Your task to perform on an android device: turn on the 12-hour format for clock Image 0: 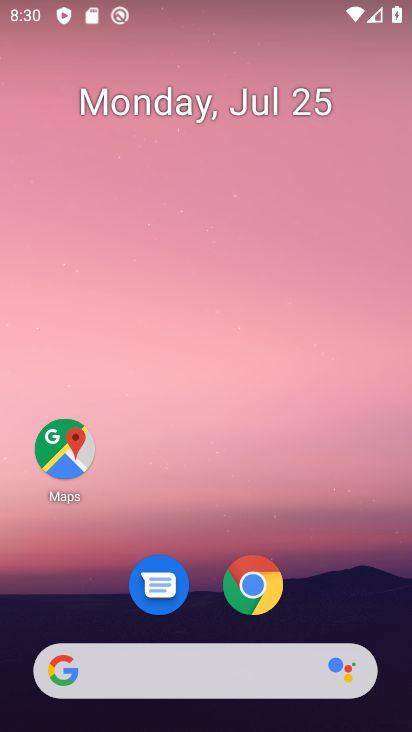
Step 0: press home button
Your task to perform on an android device: turn on the 12-hour format for clock Image 1: 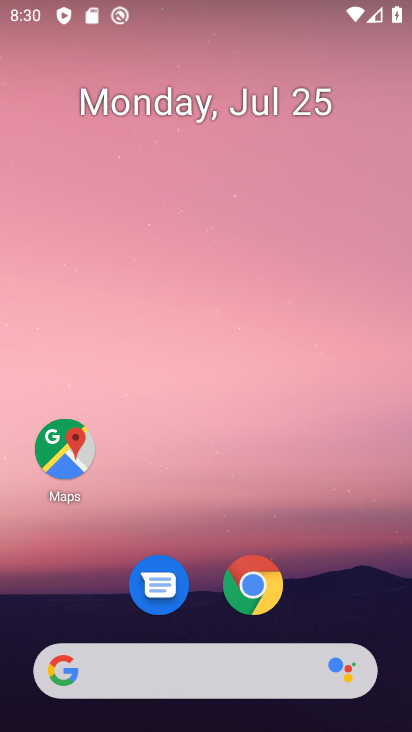
Step 1: drag from (211, 666) to (367, 114)
Your task to perform on an android device: turn on the 12-hour format for clock Image 2: 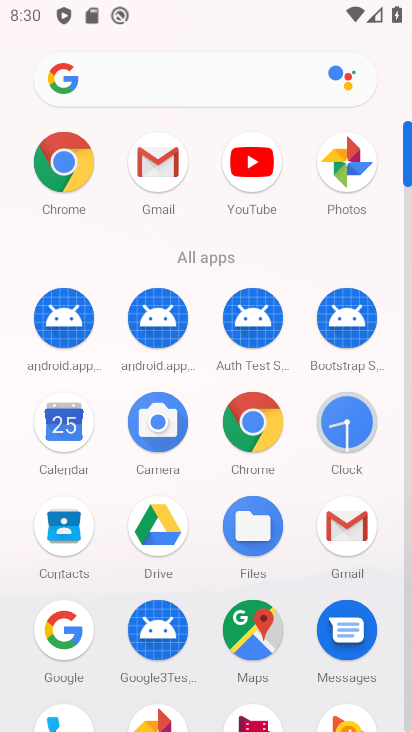
Step 2: click (347, 421)
Your task to perform on an android device: turn on the 12-hour format for clock Image 3: 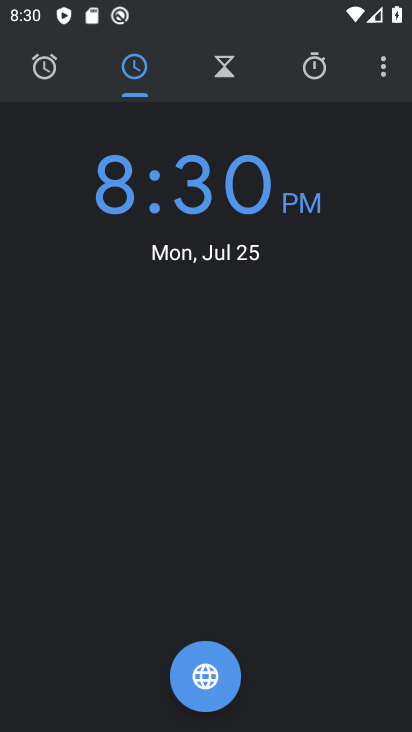
Step 3: click (380, 69)
Your task to perform on an android device: turn on the 12-hour format for clock Image 4: 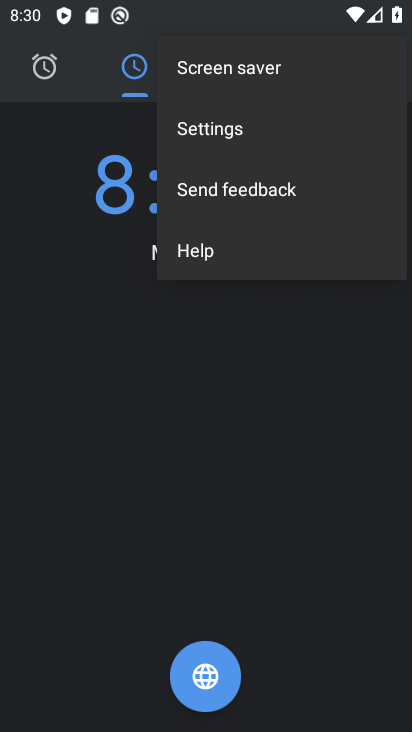
Step 4: click (215, 135)
Your task to perform on an android device: turn on the 12-hour format for clock Image 5: 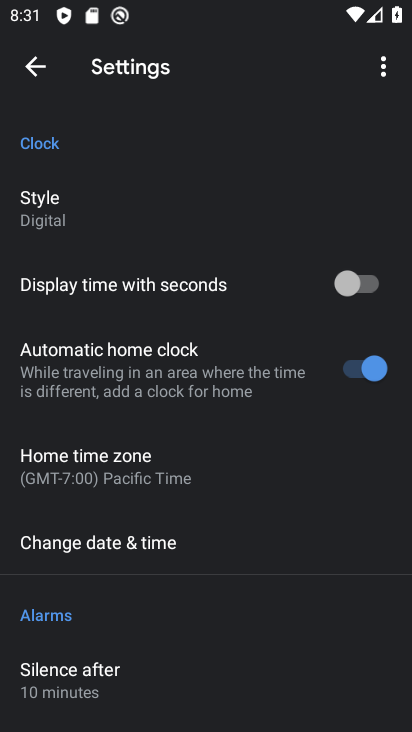
Step 5: click (163, 543)
Your task to perform on an android device: turn on the 12-hour format for clock Image 6: 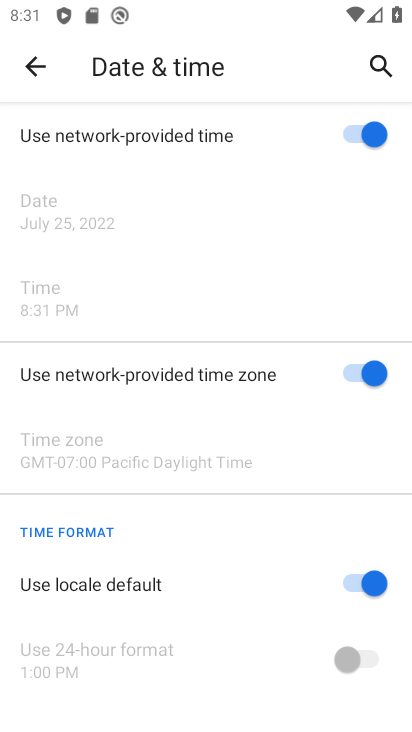
Step 6: task complete